Your task to perform on an android device: Open settings on Google Maps Image 0: 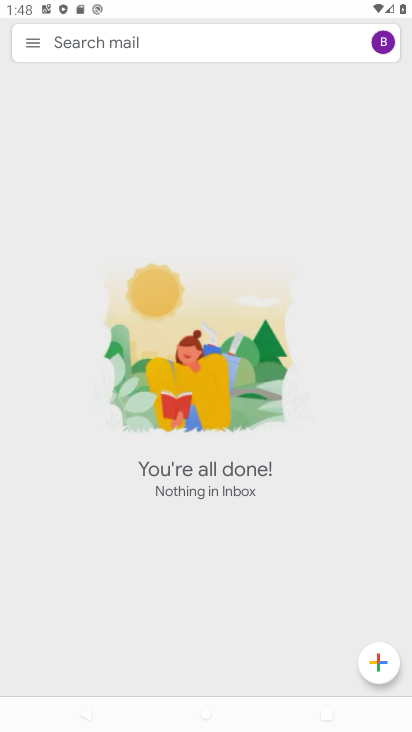
Step 0: press home button
Your task to perform on an android device: Open settings on Google Maps Image 1: 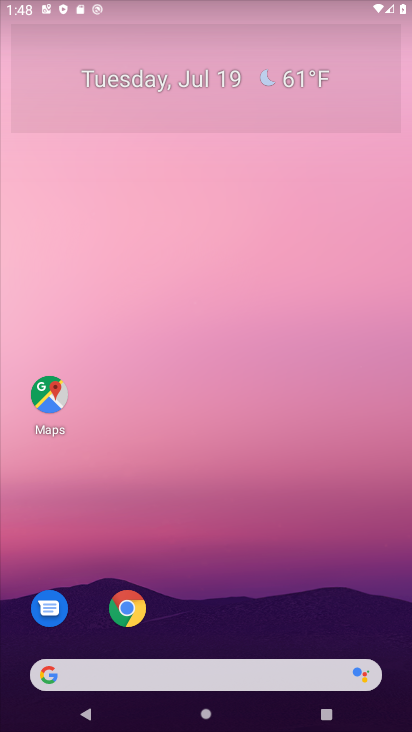
Step 1: drag from (280, 493) to (340, 0)
Your task to perform on an android device: Open settings on Google Maps Image 2: 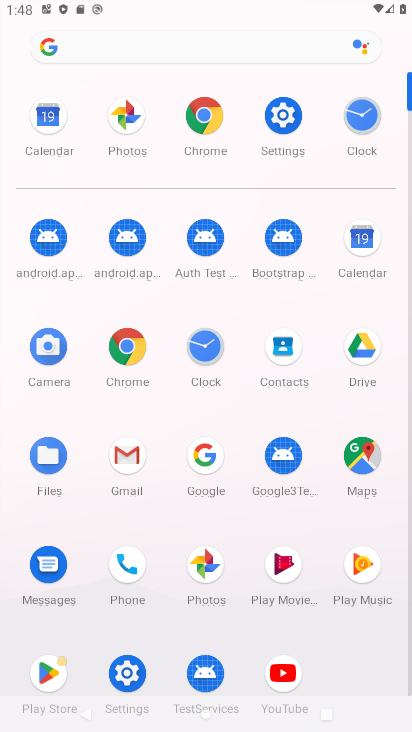
Step 2: click (360, 468)
Your task to perform on an android device: Open settings on Google Maps Image 3: 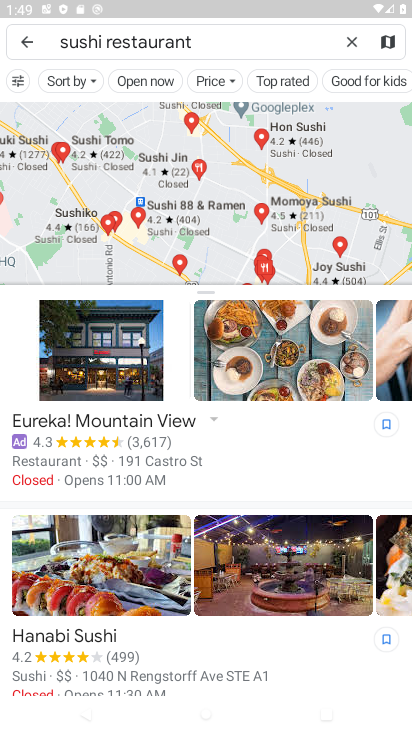
Step 3: click (21, 32)
Your task to perform on an android device: Open settings on Google Maps Image 4: 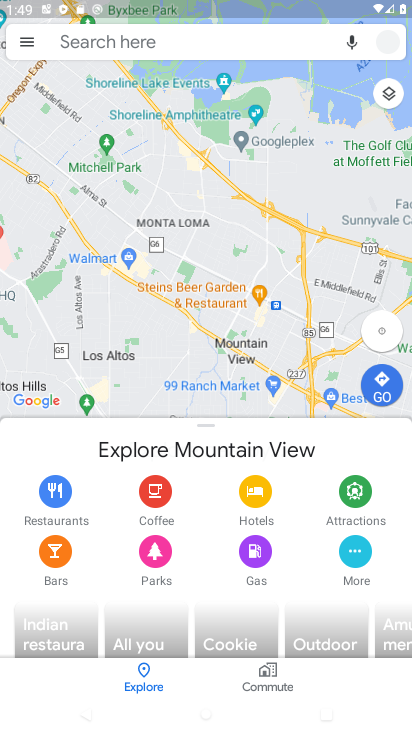
Step 4: click (28, 46)
Your task to perform on an android device: Open settings on Google Maps Image 5: 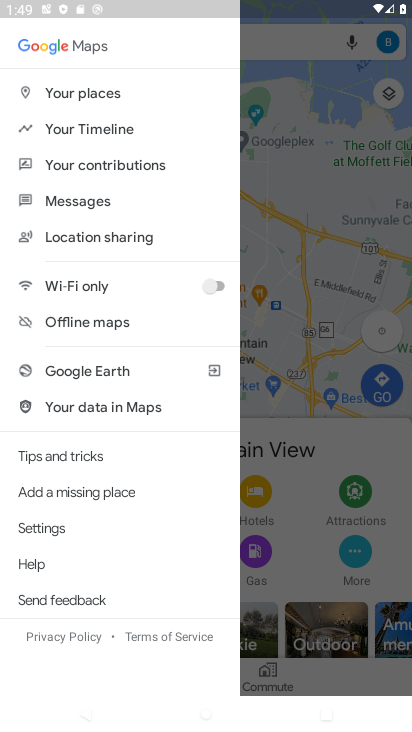
Step 5: click (39, 530)
Your task to perform on an android device: Open settings on Google Maps Image 6: 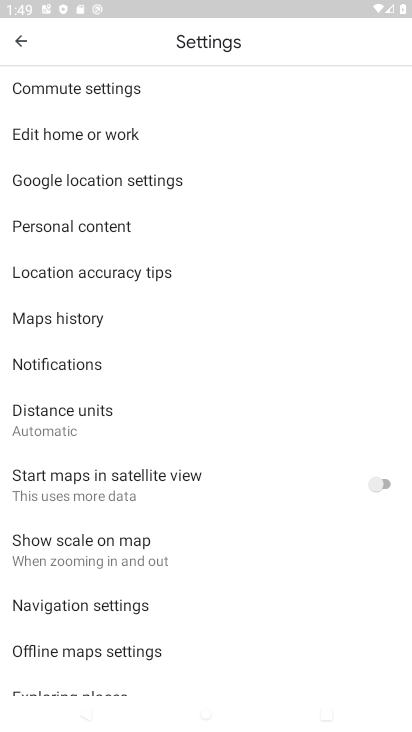
Step 6: task complete